Your task to perform on an android device: toggle notification dots Image 0: 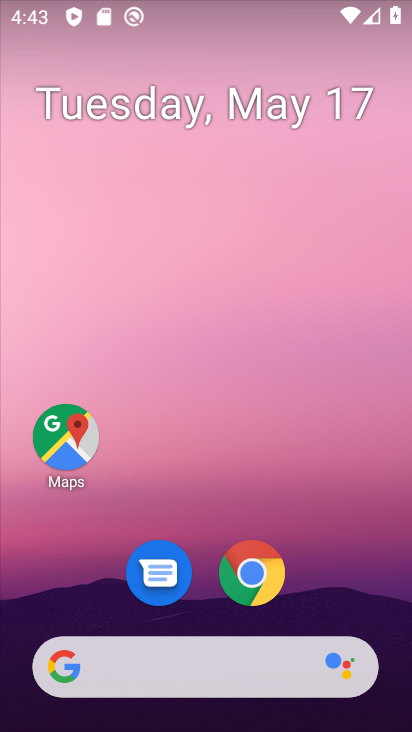
Step 0: drag from (246, 312) to (242, 217)
Your task to perform on an android device: toggle notification dots Image 1: 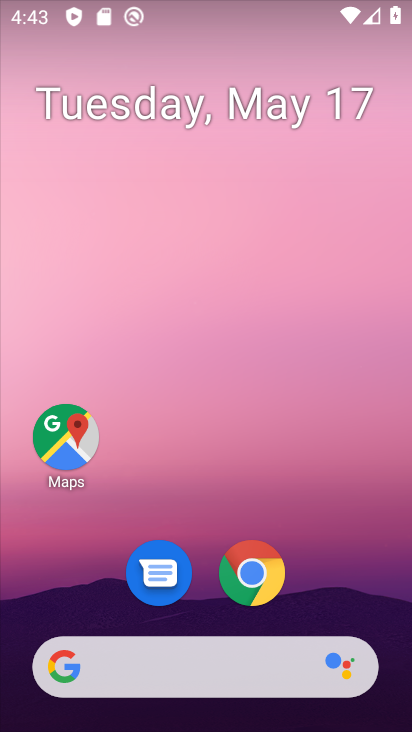
Step 1: drag from (259, 570) to (213, 66)
Your task to perform on an android device: toggle notification dots Image 2: 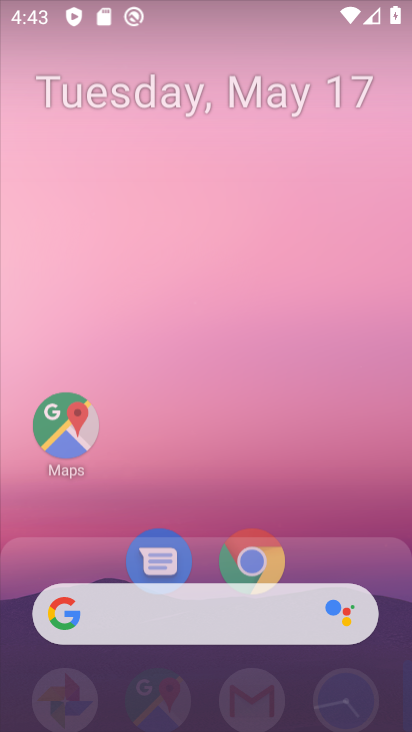
Step 2: drag from (228, 481) to (218, 164)
Your task to perform on an android device: toggle notification dots Image 3: 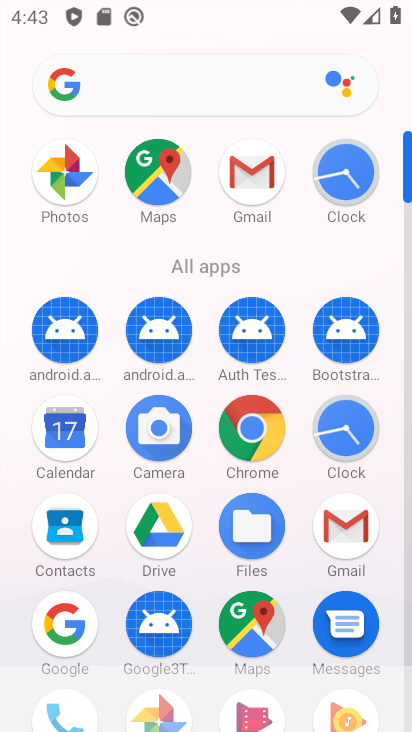
Step 3: drag from (218, 379) to (213, 0)
Your task to perform on an android device: toggle notification dots Image 4: 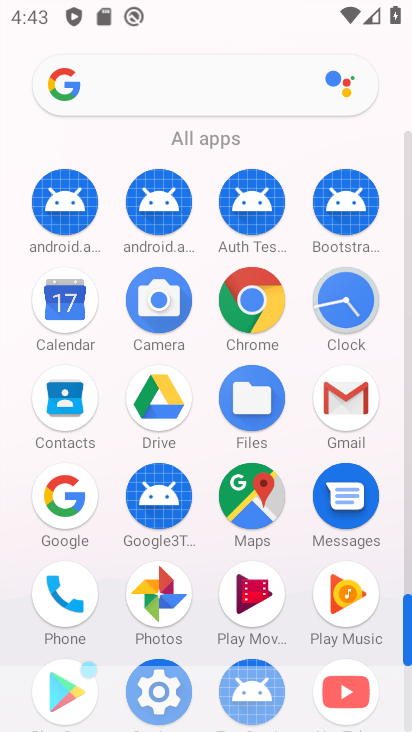
Step 4: drag from (193, 448) to (193, 270)
Your task to perform on an android device: toggle notification dots Image 5: 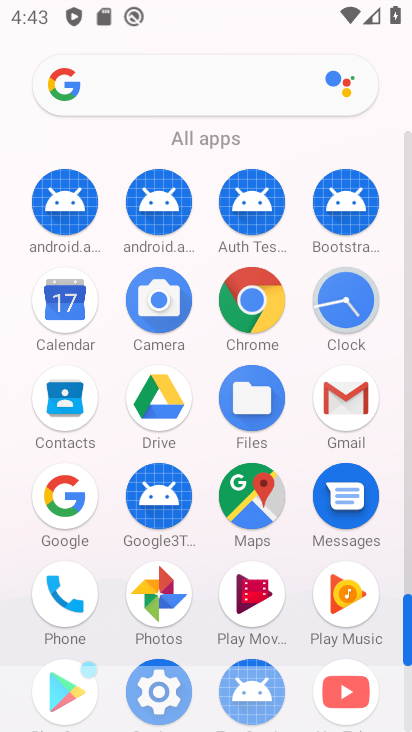
Step 5: drag from (191, 396) to (212, 184)
Your task to perform on an android device: toggle notification dots Image 6: 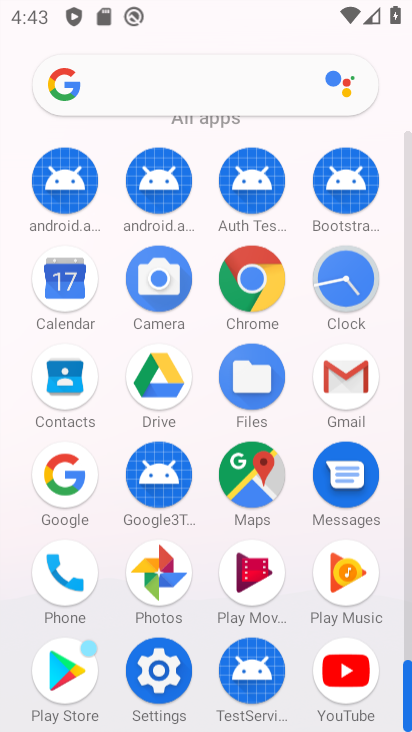
Step 6: drag from (197, 488) to (214, 350)
Your task to perform on an android device: toggle notification dots Image 7: 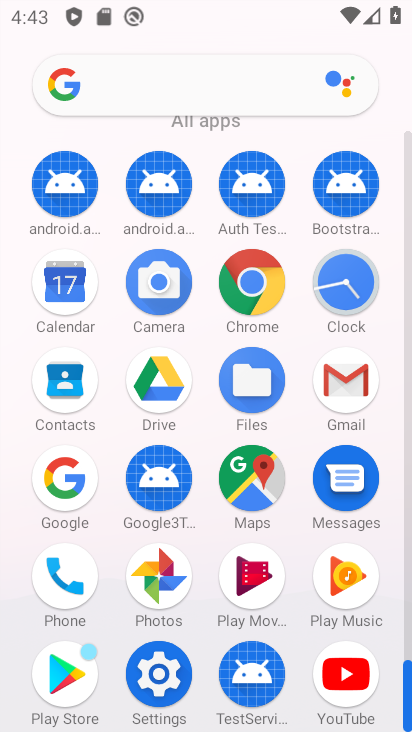
Step 7: click (160, 645)
Your task to perform on an android device: toggle notification dots Image 8: 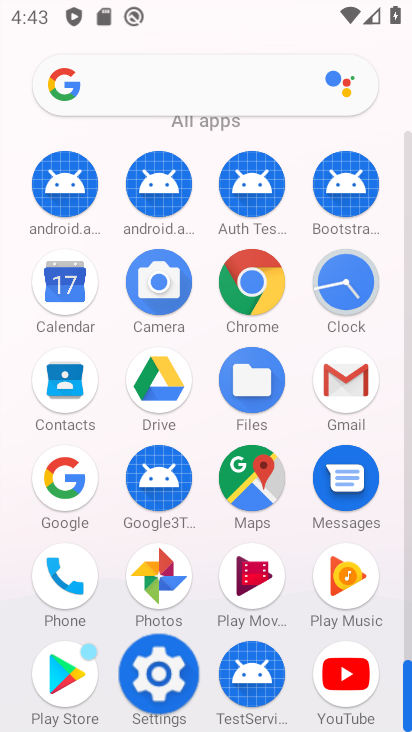
Step 8: click (139, 645)
Your task to perform on an android device: toggle notification dots Image 9: 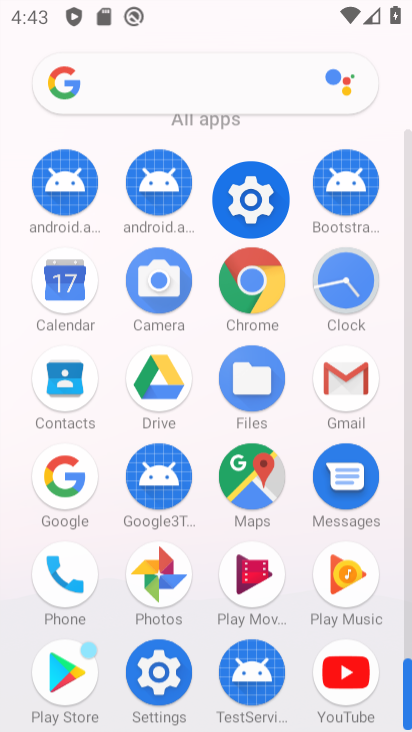
Step 9: click (160, 660)
Your task to perform on an android device: toggle notification dots Image 10: 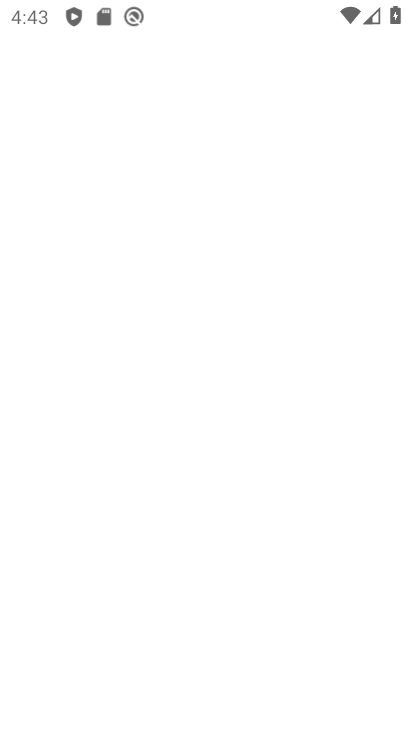
Step 10: click (166, 667)
Your task to perform on an android device: toggle notification dots Image 11: 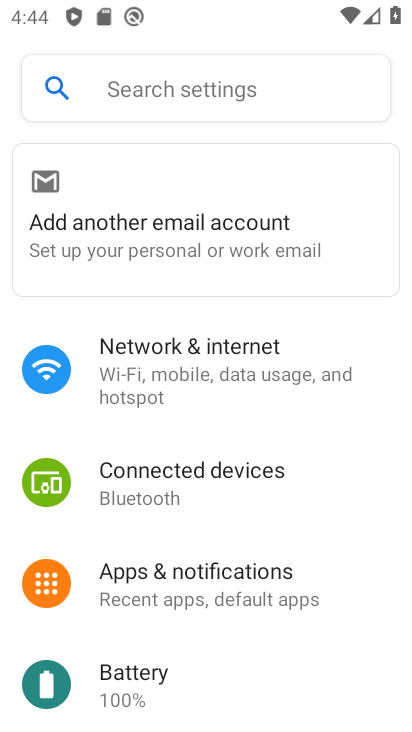
Step 11: drag from (211, 572) to (275, 131)
Your task to perform on an android device: toggle notification dots Image 12: 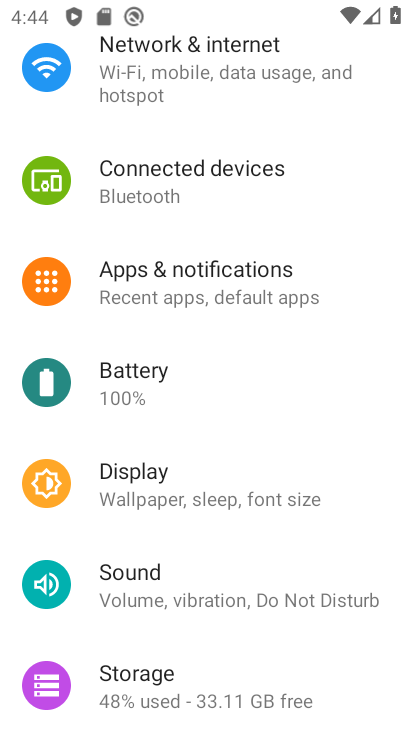
Step 12: drag from (280, 355) to (240, 66)
Your task to perform on an android device: toggle notification dots Image 13: 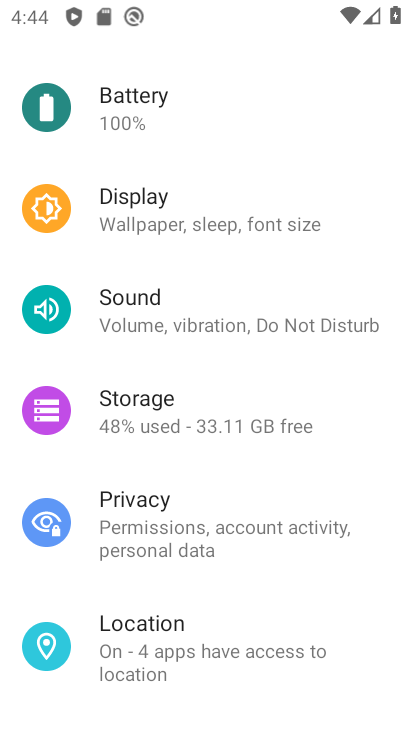
Step 13: drag from (200, 437) to (218, 46)
Your task to perform on an android device: toggle notification dots Image 14: 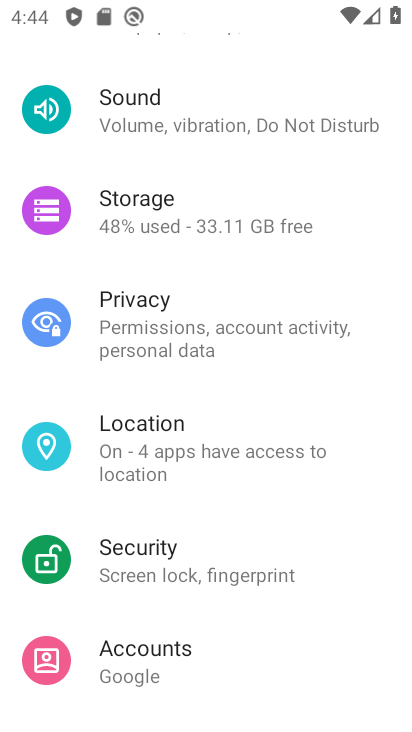
Step 14: drag from (203, 530) to (205, 124)
Your task to perform on an android device: toggle notification dots Image 15: 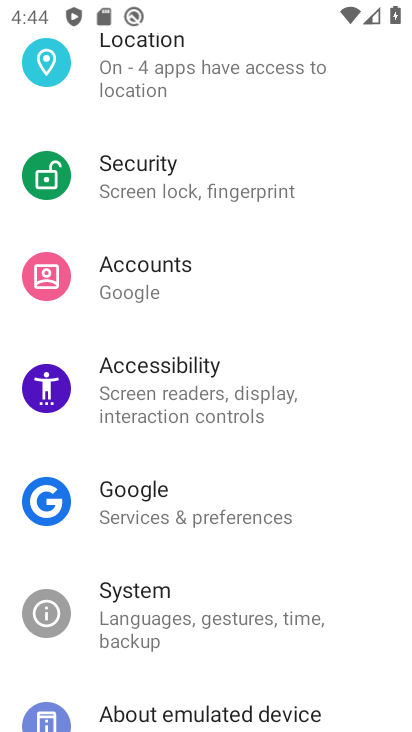
Step 15: drag from (194, 458) to (225, 154)
Your task to perform on an android device: toggle notification dots Image 16: 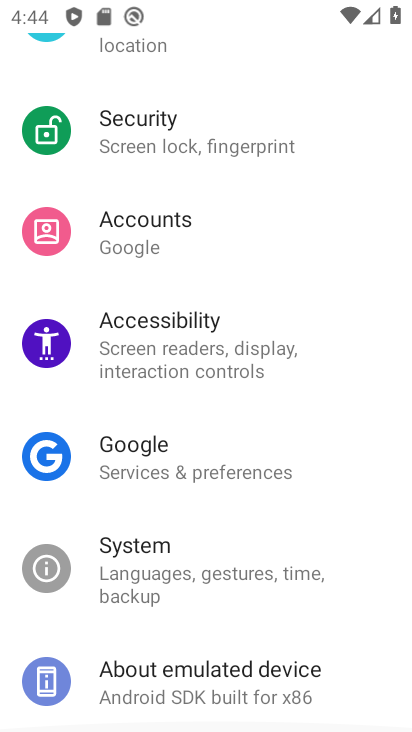
Step 16: drag from (238, 470) to (251, 188)
Your task to perform on an android device: toggle notification dots Image 17: 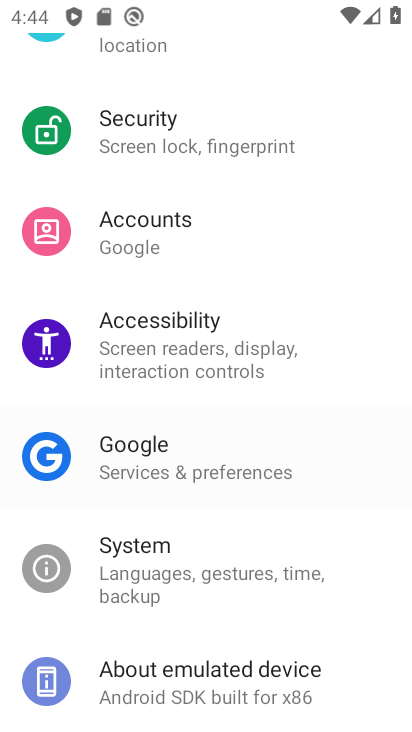
Step 17: drag from (238, 516) to (202, 184)
Your task to perform on an android device: toggle notification dots Image 18: 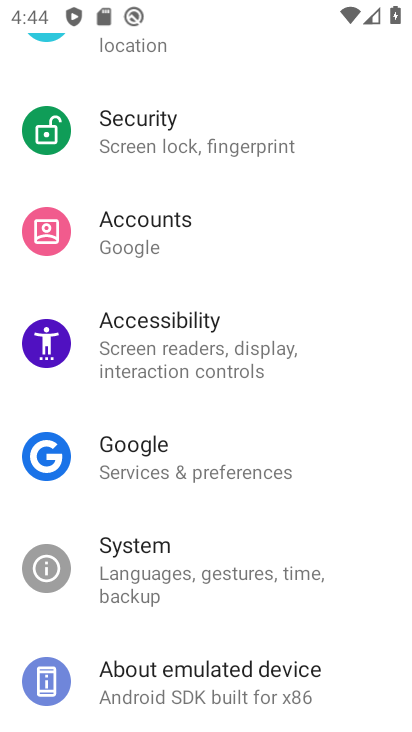
Step 18: drag from (160, 225) to (219, 444)
Your task to perform on an android device: toggle notification dots Image 19: 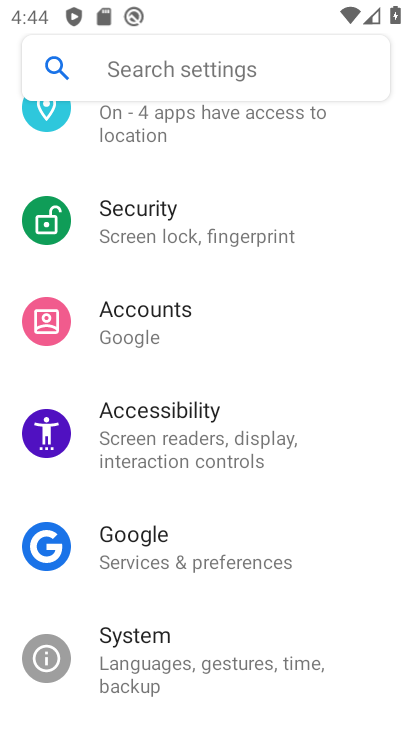
Step 19: drag from (243, 133) to (265, 375)
Your task to perform on an android device: toggle notification dots Image 20: 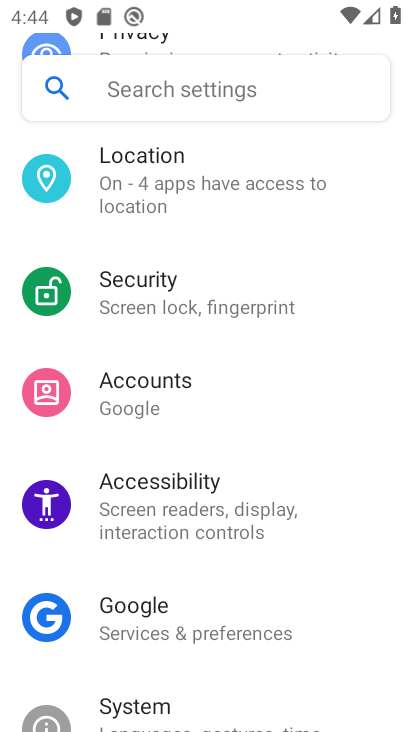
Step 20: drag from (217, 181) to (247, 407)
Your task to perform on an android device: toggle notification dots Image 21: 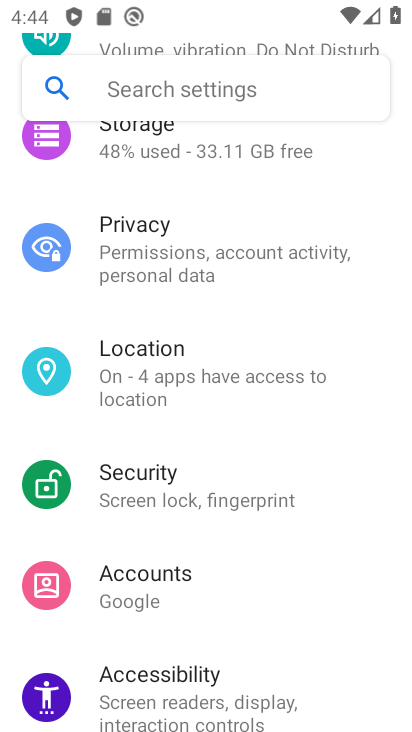
Step 21: drag from (161, 249) to (226, 521)
Your task to perform on an android device: toggle notification dots Image 22: 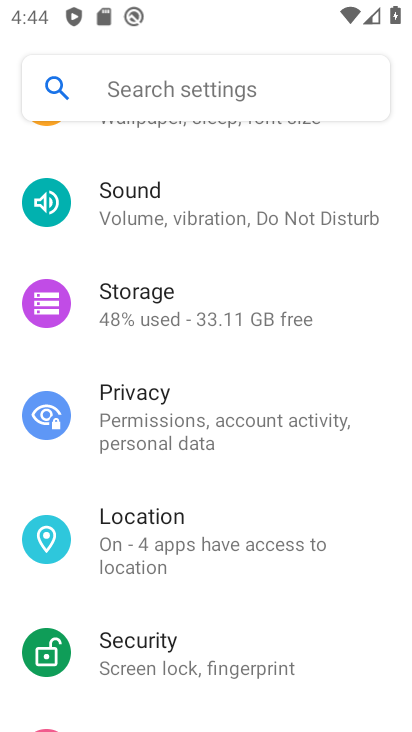
Step 22: drag from (220, 259) to (232, 546)
Your task to perform on an android device: toggle notification dots Image 23: 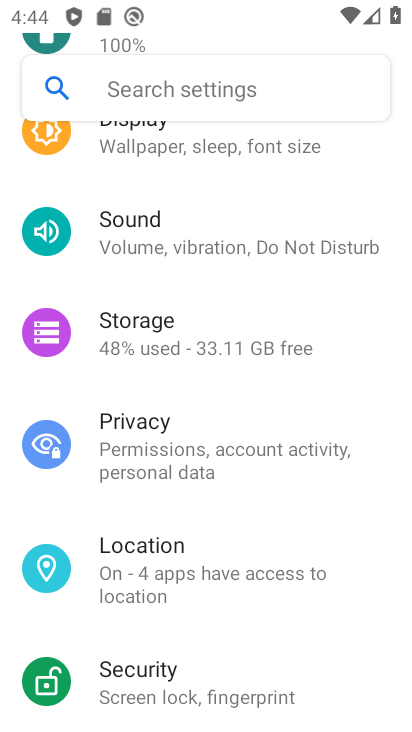
Step 23: drag from (203, 288) to (261, 591)
Your task to perform on an android device: toggle notification dots Image 24: 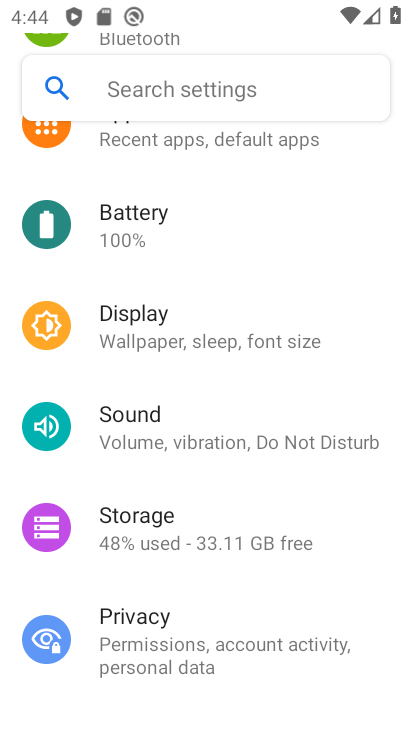
Step 24: drag from (233, 227) to (220, 495)
Your task to perform on an android device: toggle notification dots Image 25: 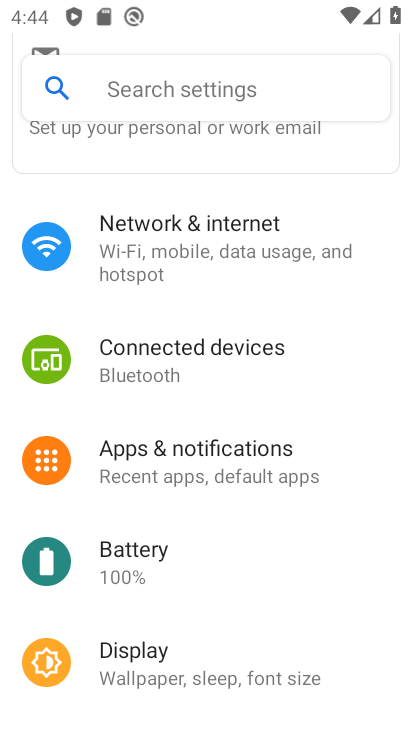
Step 25: click (184, 227)
Your task to perform on an android device: toggle notification dots Image 26: 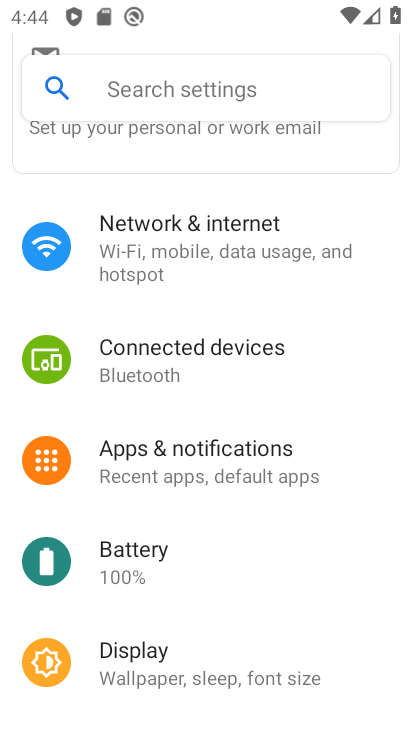
Step 26: click (185, 228)
Your task to perform on an android device: toggle notification dots Image 27: 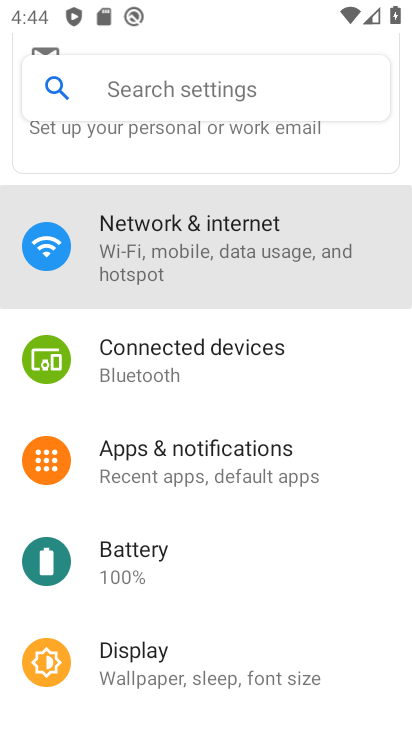
Step 27: click (185, 230)
Your task to perform on an android device: toggle notification dots Image 28: 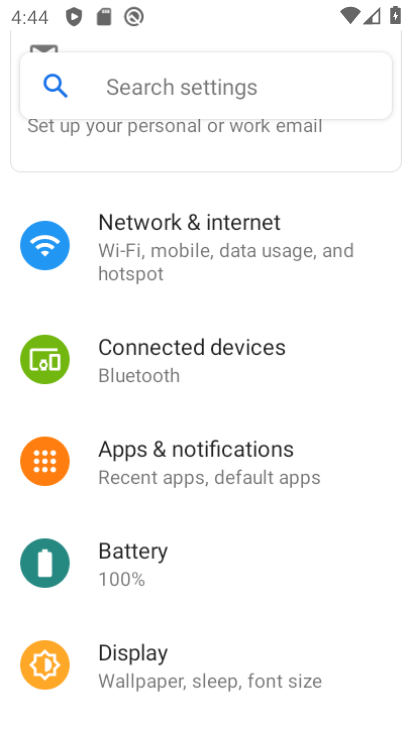
Step 28: click (185, 230)
Your task to perform on an android device: toggle notification dots Image 29: 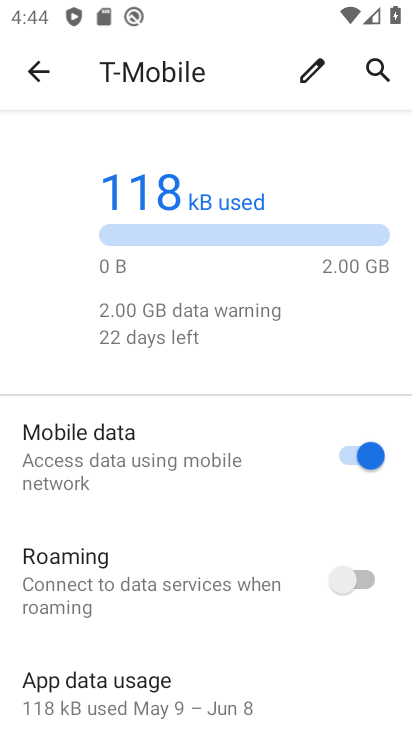
Step 29: click (44, 81)
Your task to perform on an android device: toggle notification dots Image 30: 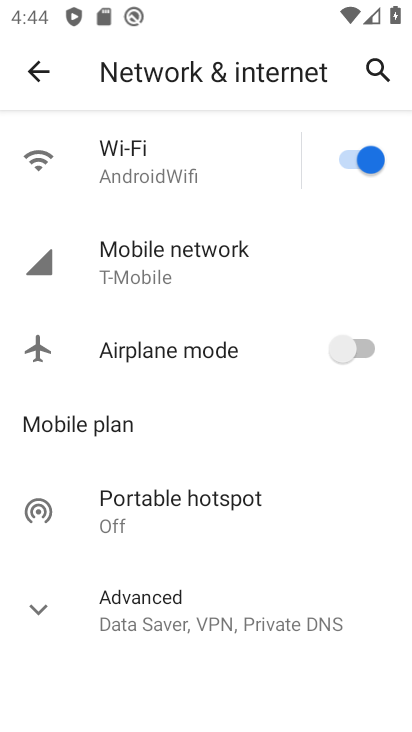
Step 30: click (41, 64)
Your task to perform on an android device: toggle notification dots Image 31: 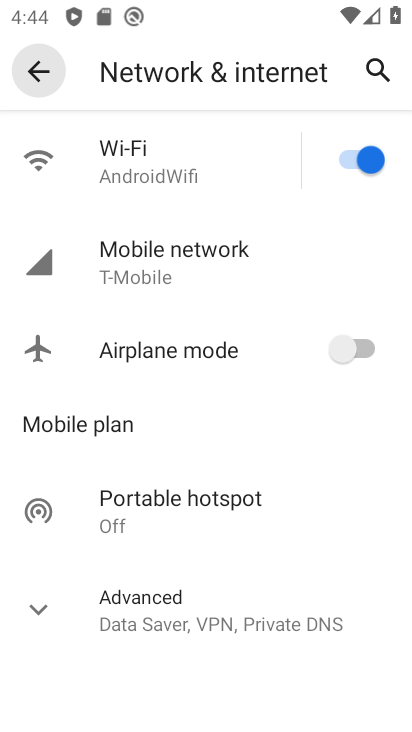
Step 31: click (49, 76)
Your task to perform on an android device: toggle notification dots Image 32: 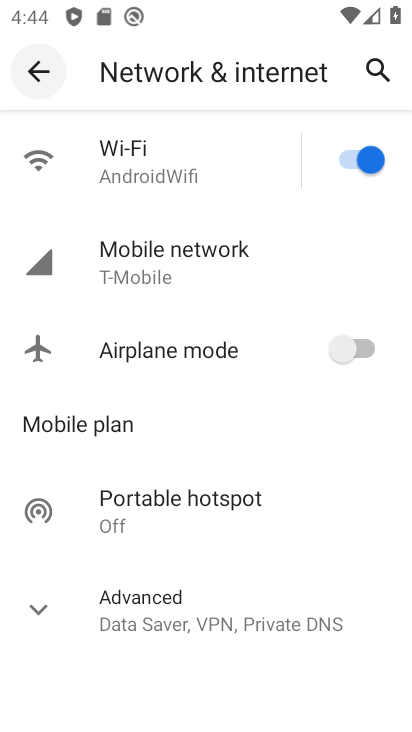
Step 32: click (44, 78)
Your task to perform on an android device: toggle notification dots Image 33: 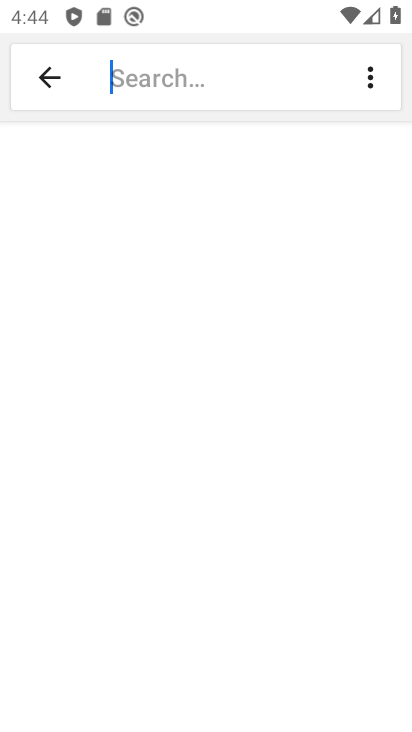
Step 33: click (223, 372)
Your task to perform on an android device: toggle notification dots Image 34: 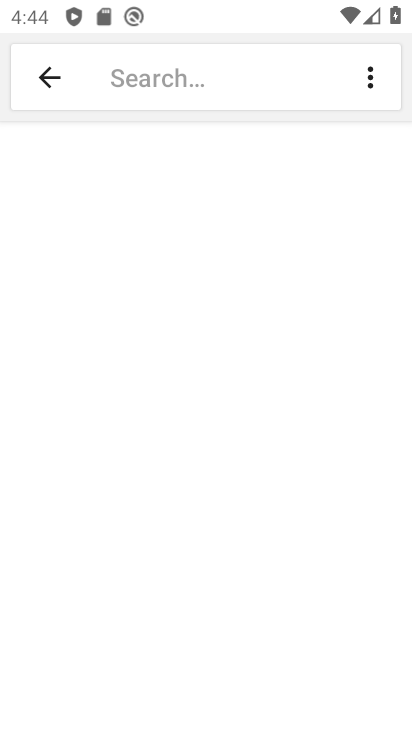
Step 34: click (209, 356)
Your task to perform on an android device: toggle notification dots Image 35: 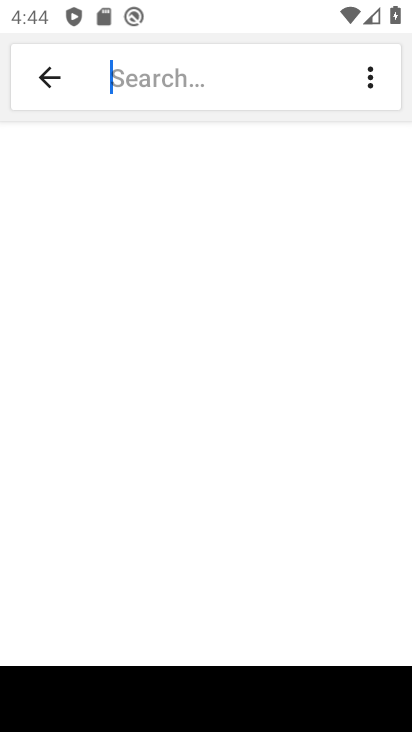
Step 35: click (194, 351)
Your task to perform on an android device: toggle notification dots Image 36: 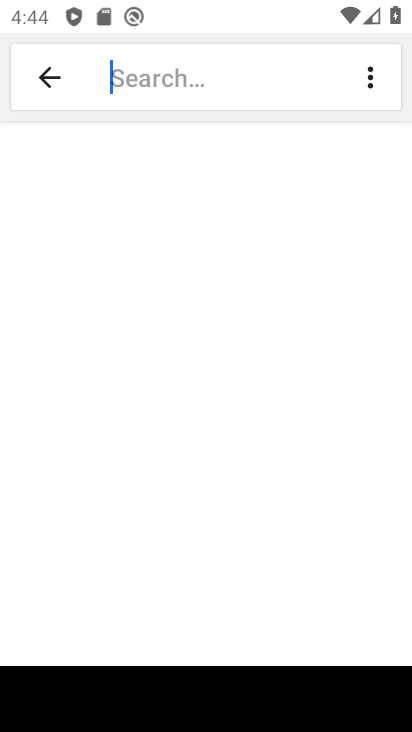
Step 36: click (199, 356)
Your task to perform on an android device: toggle notification dots Image 37: 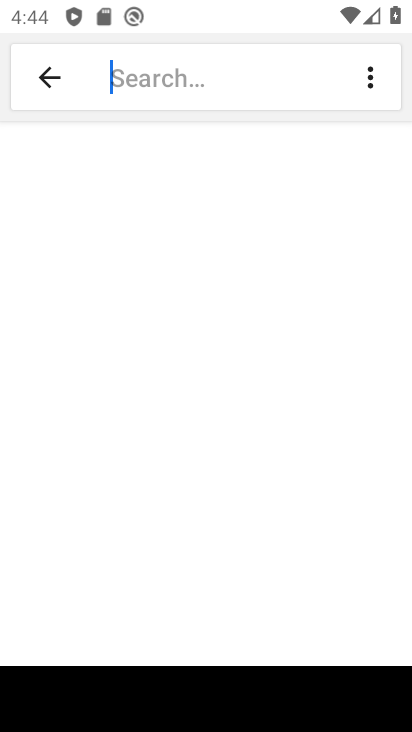
Step 37: click (200, 359)
Your task to perform on an android device: toggle notification dots Image 38: 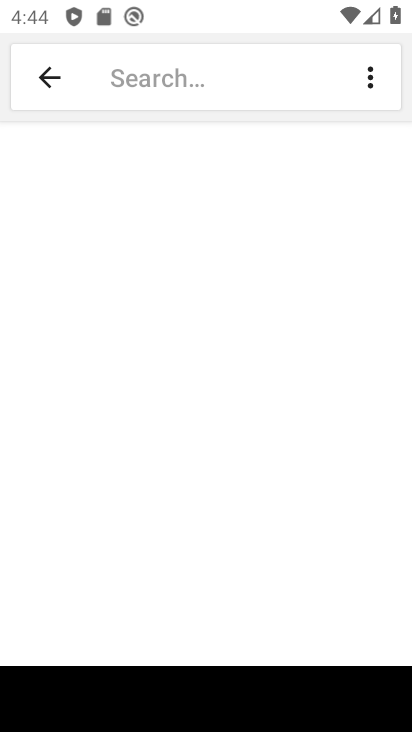
Step 38: click (204, 363)
Your task to perform on an android device: toggle notification dots Image 39: 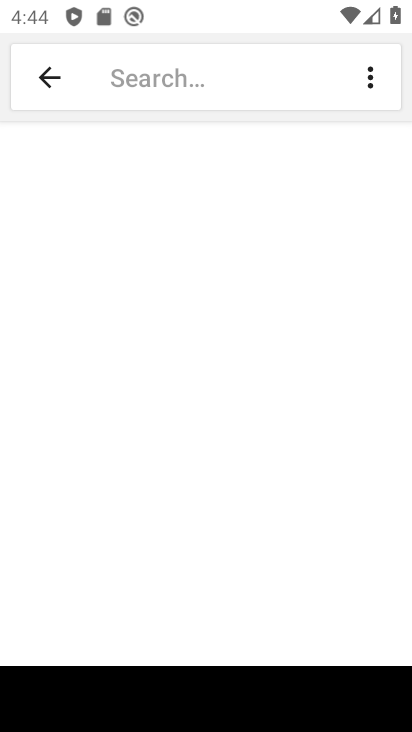
Step 39: click (48, 82)
Your task to perform on an android device: toggle notification dots Image 40: 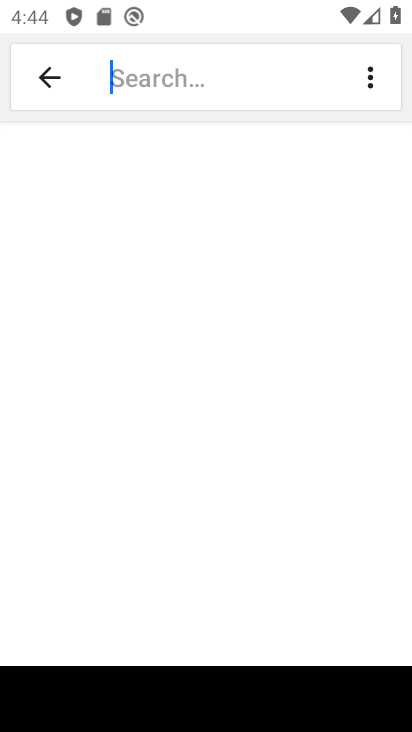
Step 40: click (42, 81)
Your task to perform on an android device: toggle notification dots Image 41: 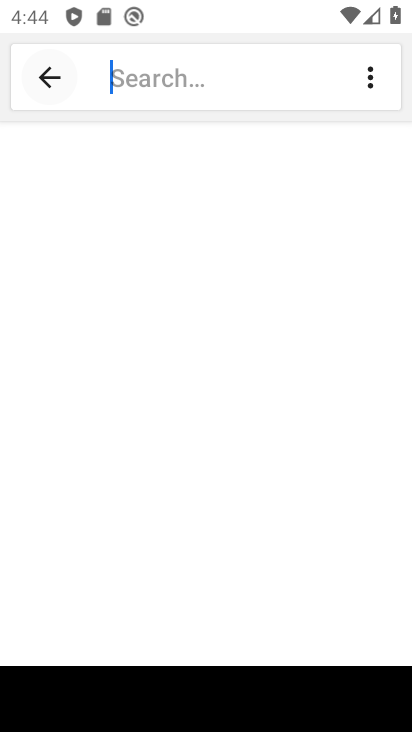
Step 41: click (37, 82)
Your task to perform on an android device: toggle notification dots Image 42: 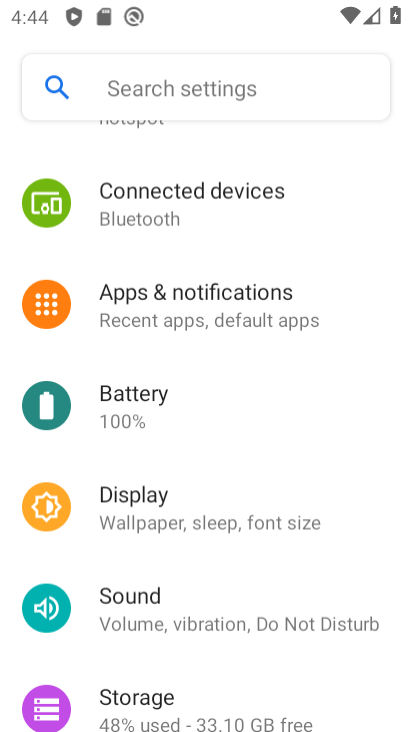
Step 42: click (38, 82)
Your task to perform on an android device: toggle notification dots Image 43: 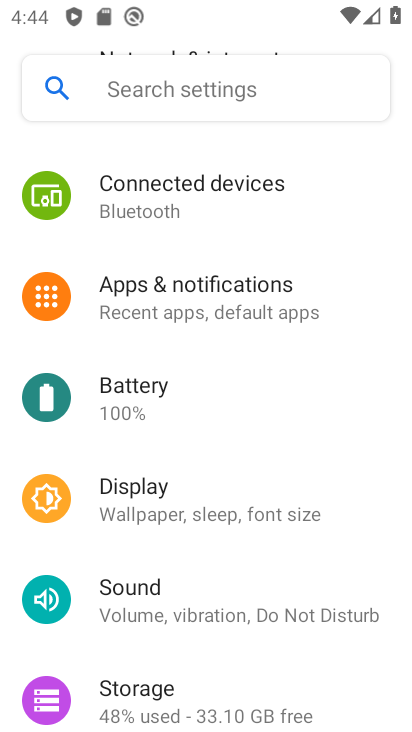
Step 43: click (38, 82)
Your task to perform on an android device: toggle notification dots Image 44: 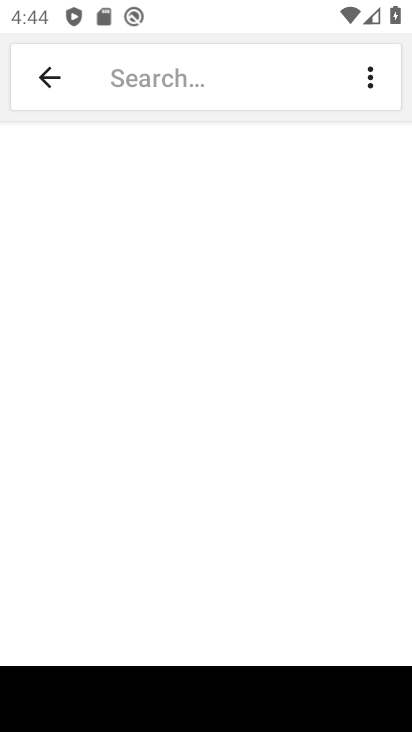
Step 44: click (48, 76)
Your task to perform on an android device: toggle notification dots Image 45: 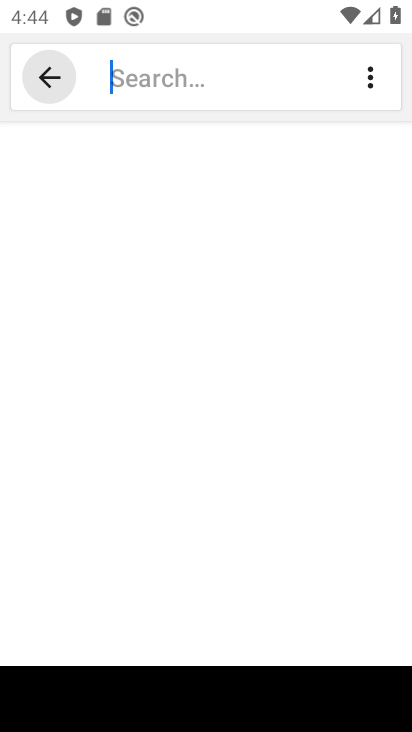
Step 45: click (54, 83)
Your task to perform on an android device: toggle notification dots Image 46: 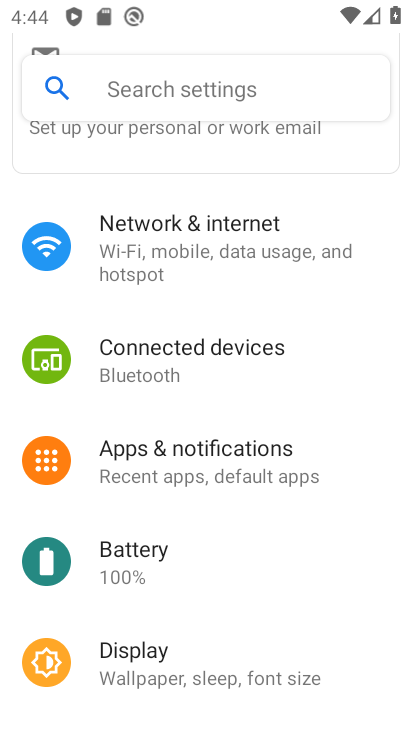
Step 46: click (197, 463)
Your task to perform on an android device: toggle notification dots Image 47: 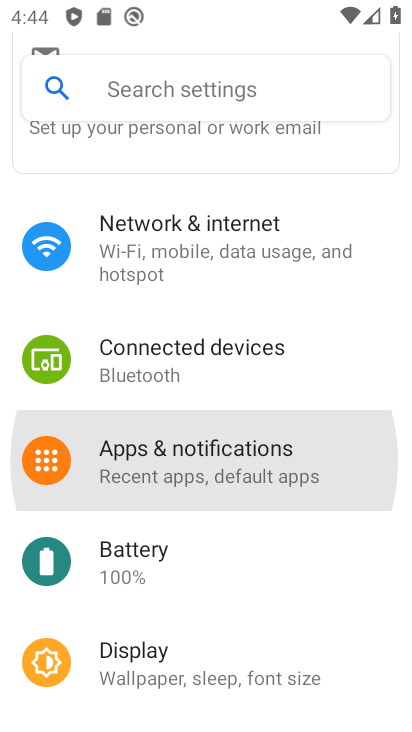
Step 47: click (197, 463)
Your task to perform on an android device: toggle notification dots Image 48: 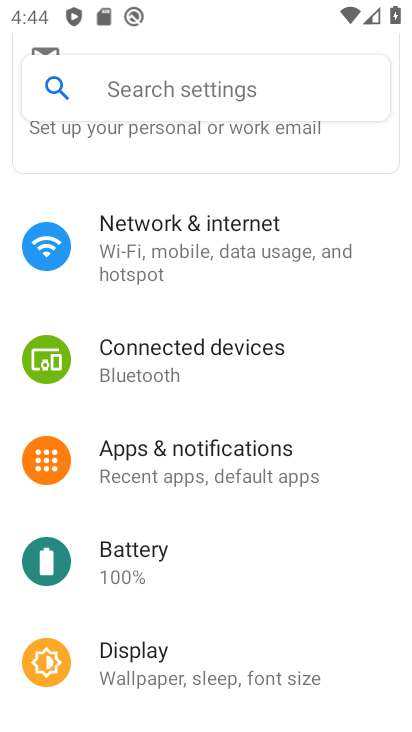
Step 48: click (195, 466)
Your task to perform on an android device: toggle notification dots Image 49: 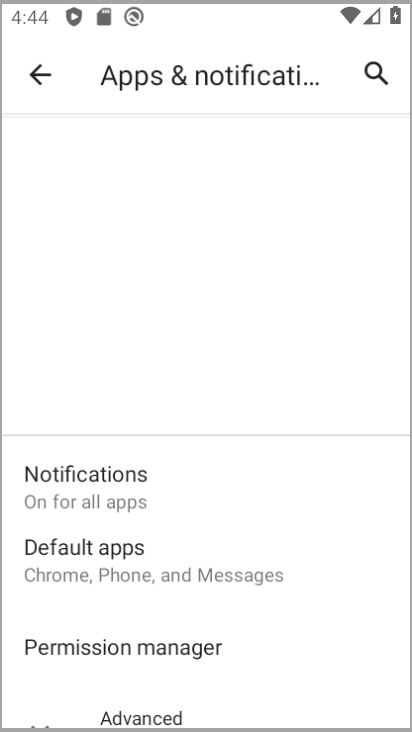
Step 49: click (207, 467)
Your task to perform on an android device: toggle notification dots Image 50: 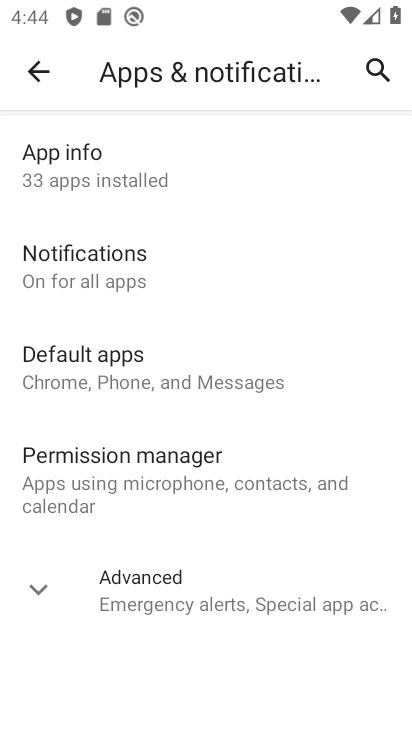
Step 50: drag from (83, 272) to (105, 365)
Your task to perform on an android device: toggle notification dots Image 51: 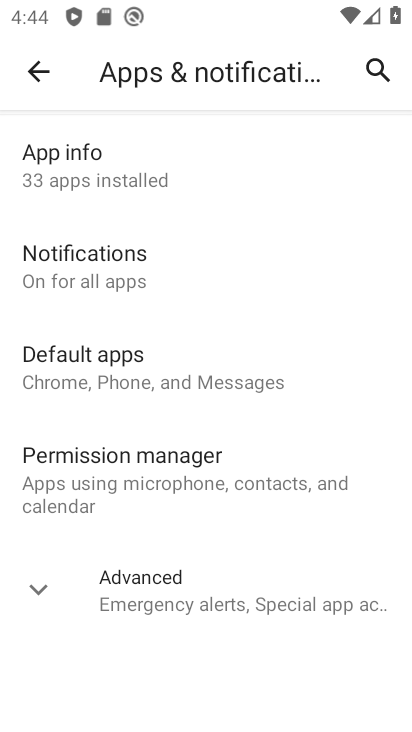
Step 51: click (86, 272)
Your task to perform on an android device: toggle notification dots Image 52: 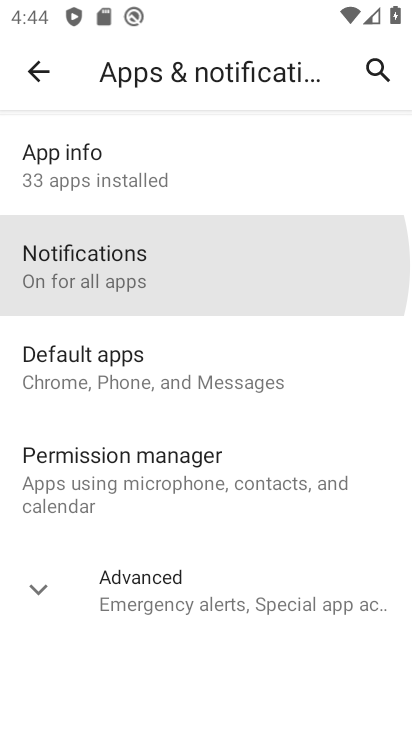
Step 52: click (92, 273)
Your task to perform on an android device: toggle notification dots Image 53: 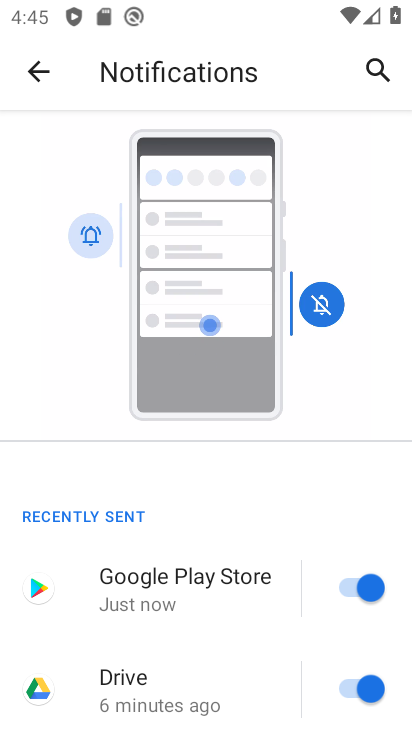
Step 53: drag from (251, 569) to (262, 267)
Your task to perform on an android device: toggle notification dots Image 54: 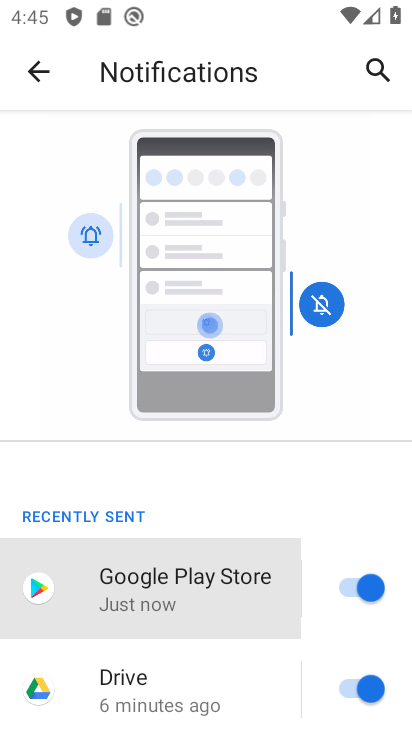
Step 54: drag from (286, 424) to (210, 33)
Your task to perform on an android device: toggle notification dots Image 55: 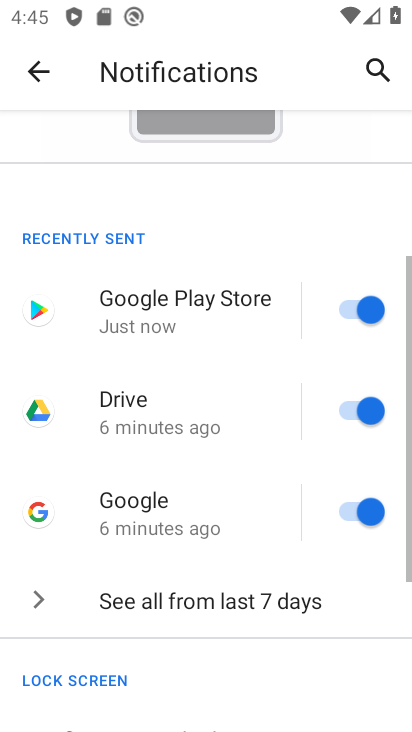
Step 55: drag from (204, 498) to (122, 134)
Your task to perform on an android device: toggle notification dots Image 56: 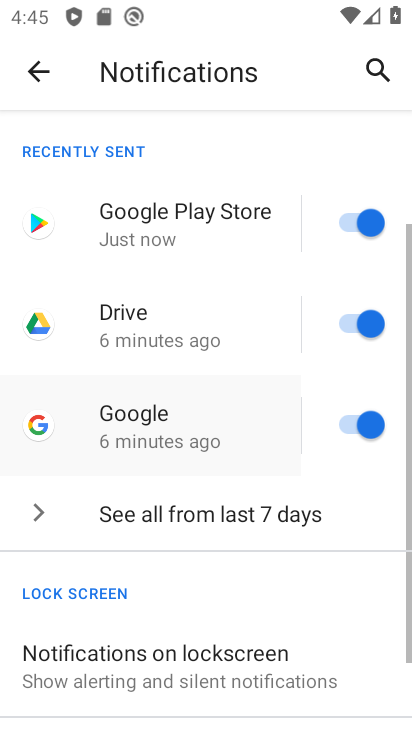
Step 56: drag from (137, 376) to (129, 246)
Your task to perform on an android device: toggle notification dots Image 57: 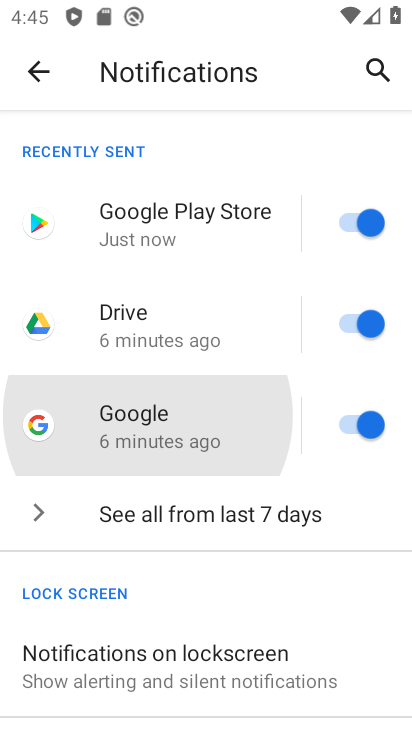
Step 57: drag from (101, 513) to (101, 242)
Your task to perform on an android device: toggle notification dots Image 58: 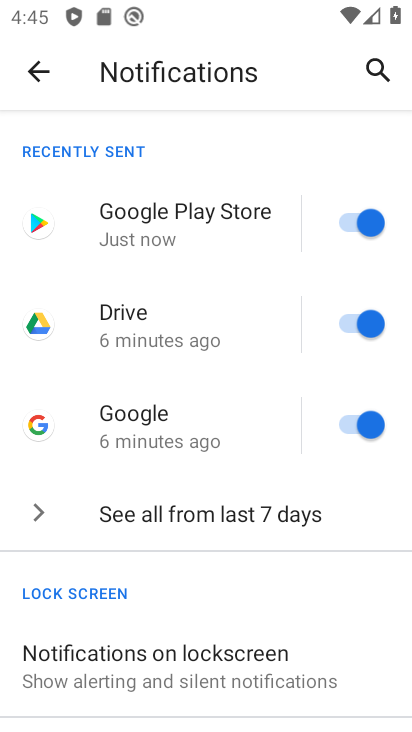
Step 58: drag from (180, 515) to (200, 178)
Your task to perform on an android device: toggle notification dots Image 59: 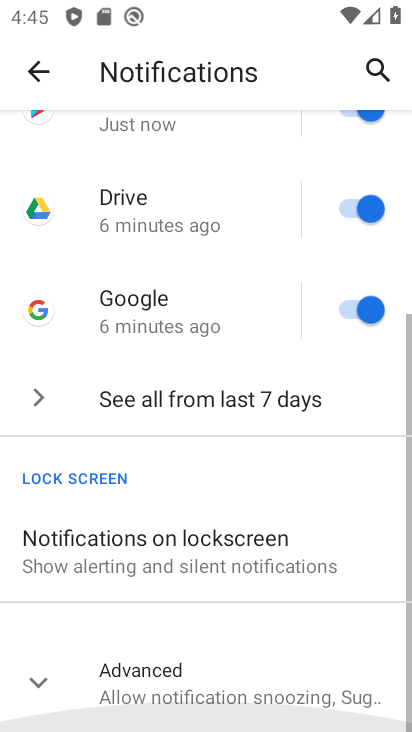
Step 59: drag from (287, 488) to (273, 197)
Your task to perform on an android device: toggle notification dots Image 60: 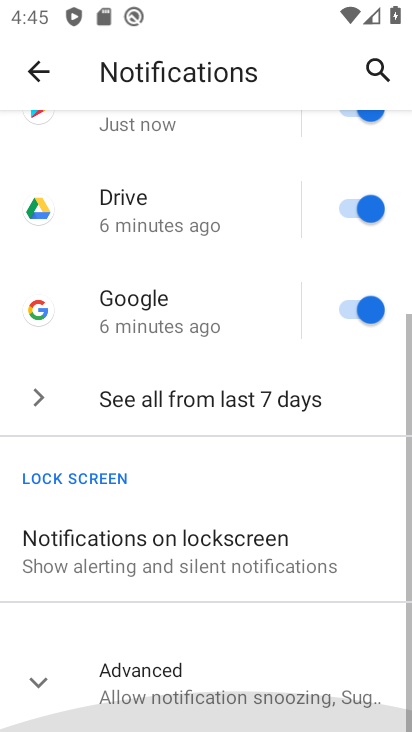
Step 60: drag from (202, 452) to (153, 164)
Your task to perform on an android device: toggle notification dots Image 61: 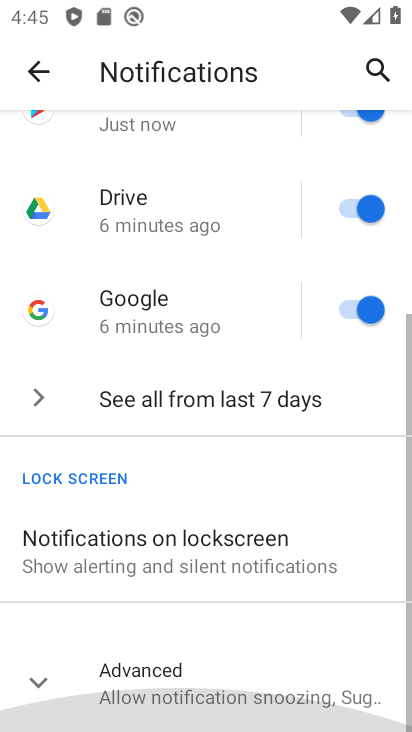
Step 61: drag from (213, 467) to (202, 276)
Your task to perform on an android device: toggle notification dots Image 62: 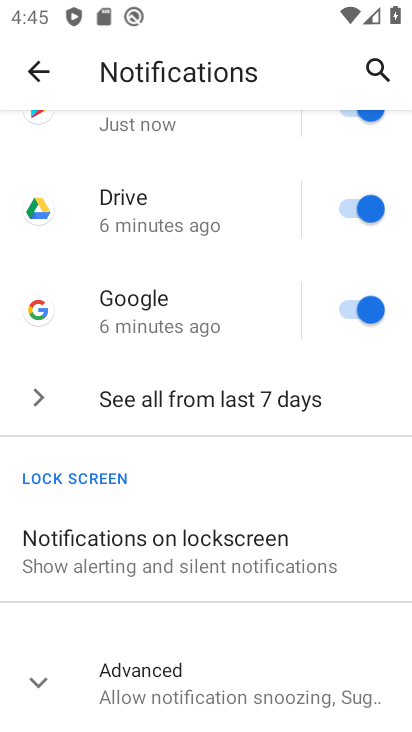
Step 62: click (184, 703)
Your task to perform on an android device: toggle notification dots Image 63: 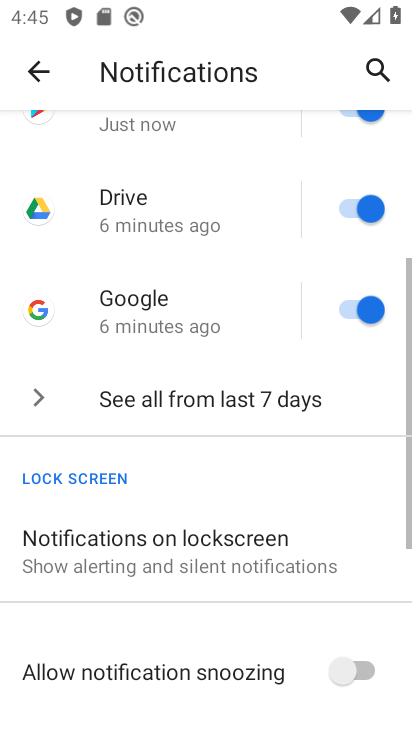
Step 63: click (152, 673)
Your task to perform on an android device: toggle notification dots Image 64: 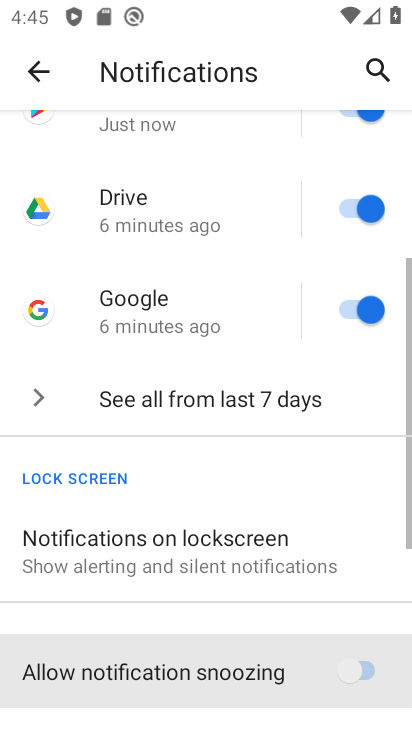
Step 64: click (162, 656)
Your task to perform on an android device: toggle notification dots Image 65: 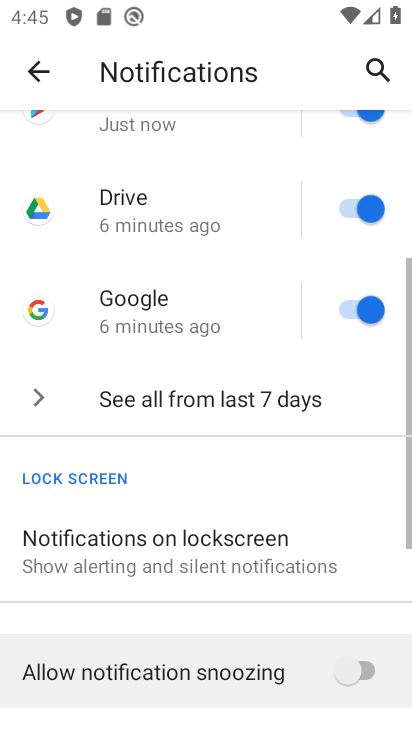
Step 65: drag from (155, 281) to (133, 200)
Your task to perform on an android device: toggle notification dots Image 66: 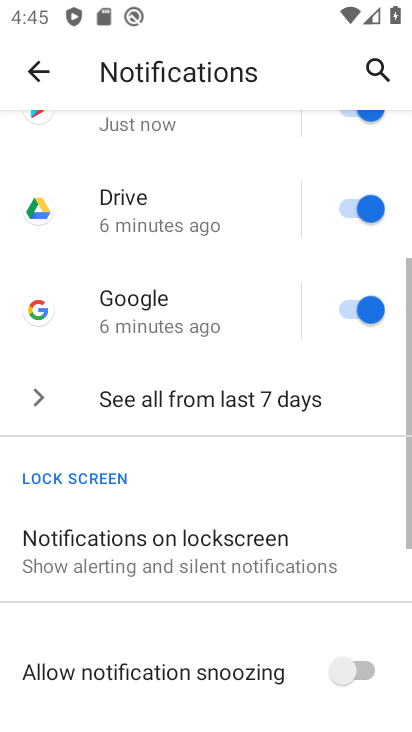
Step 66: drag from (163, 368) to (91, 34)
Your task to perform on an android device: toggle notification dots Image 67: 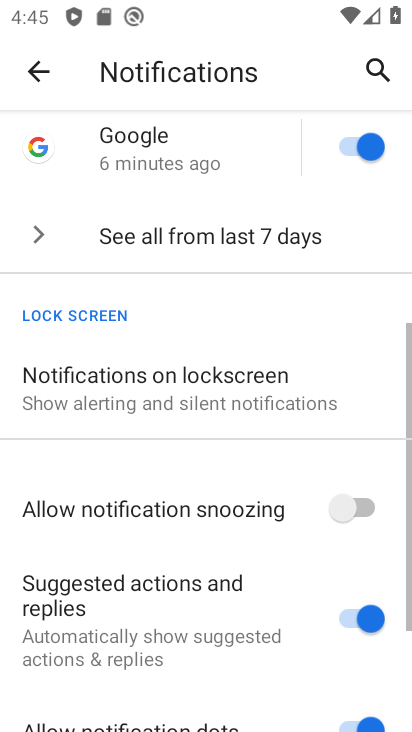
Step 67: drag from (193, 275) to (179, 22)
Your task to perform on an android device: toggle notification dots Image 68: 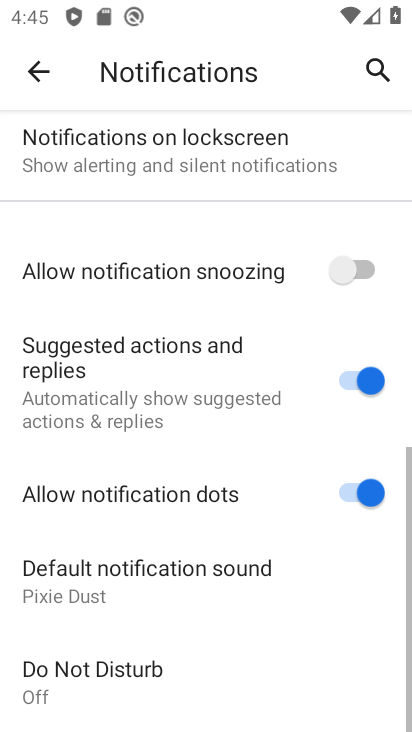
Step 68: drag from (205, 449) to (181, 127)
Your task to perform on an android device: toggle notification dots Image 69: 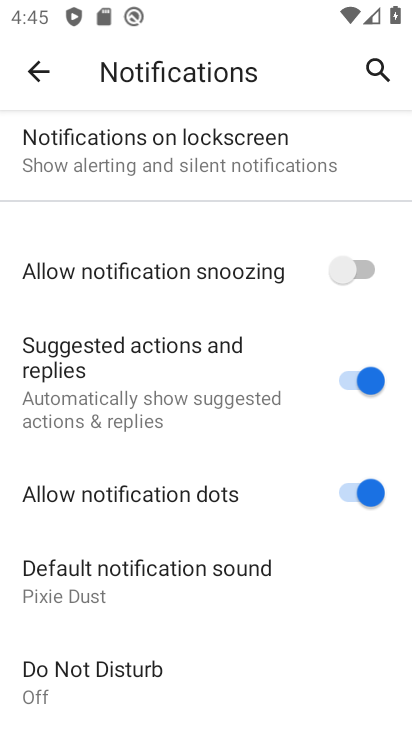
Step 69: click (353, 491)
Your task to perform on an android device: toggle notification dots Image 70: 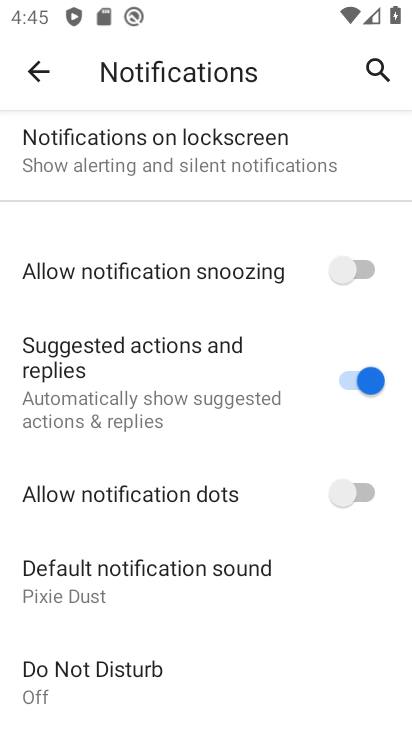
Step 70: task complete